Your task to perform on an android device: Open internet settings Image 0: 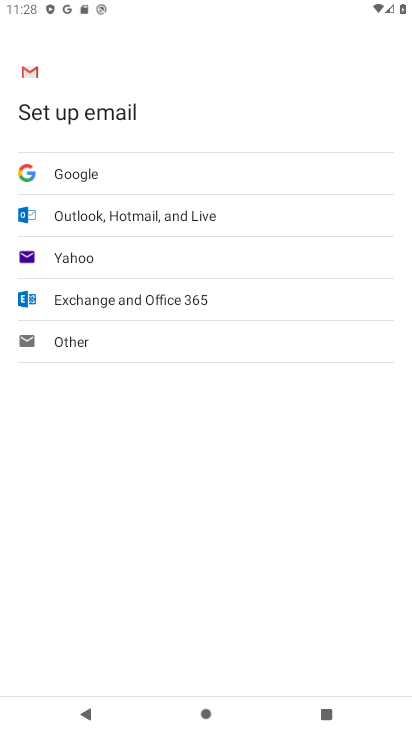
Step 0: drag from (175, 15) to (50, 717)
Your task to perform on an android device: Open internet settings Image 1: 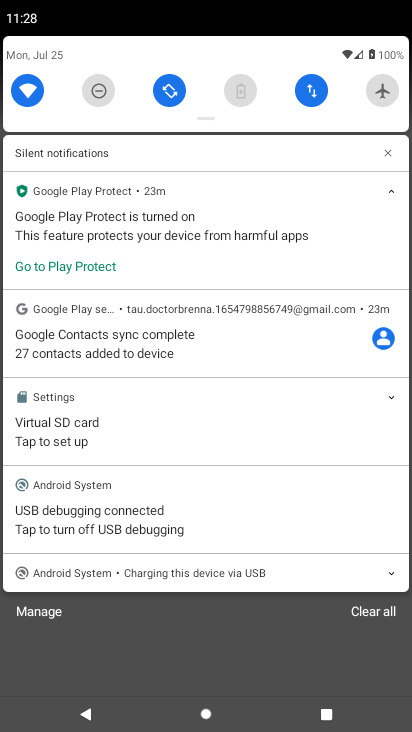
Step 1: click (312, 106)
Your task to perform on an android device: Open internet settings Image 2: 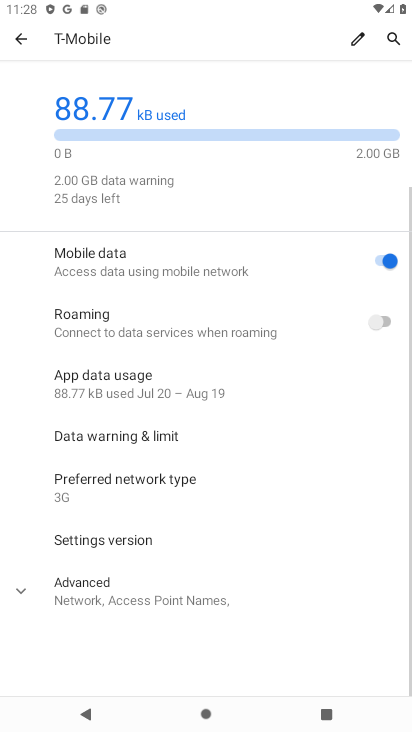
Step 2: task complete